Your task to perform on an android device: Open calendar and show me the fourth week of next month Image 0: 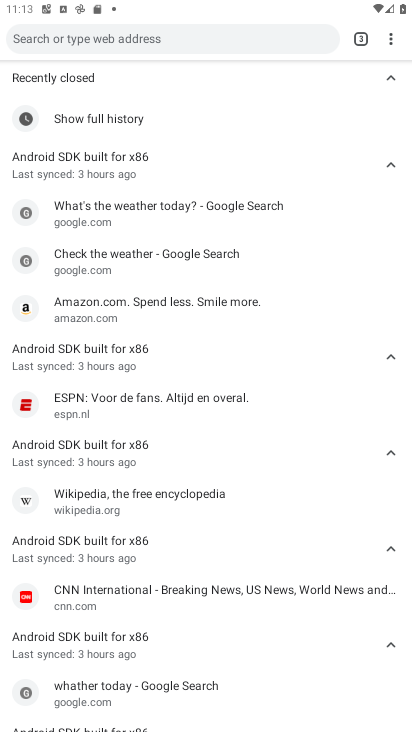
Step 0: press home button
Your task to perform on an android device: Open calendar and show me the fourth week of next month Image 1: 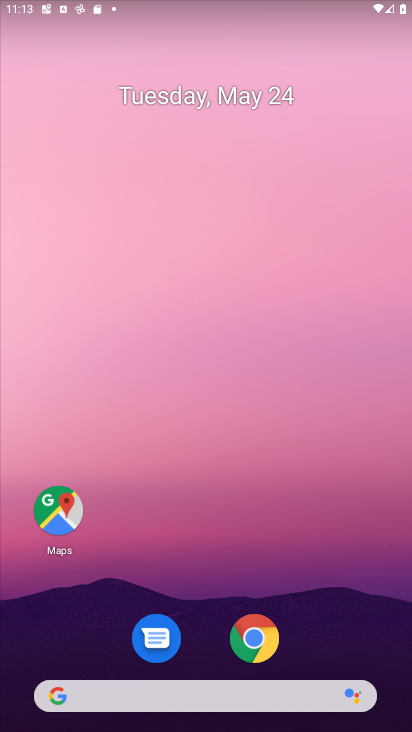
Step 1: drag from (137, 707) to (67, 9)
Your task to perform on an android device: Open calendar and show me the fourth week of next month Image 2: 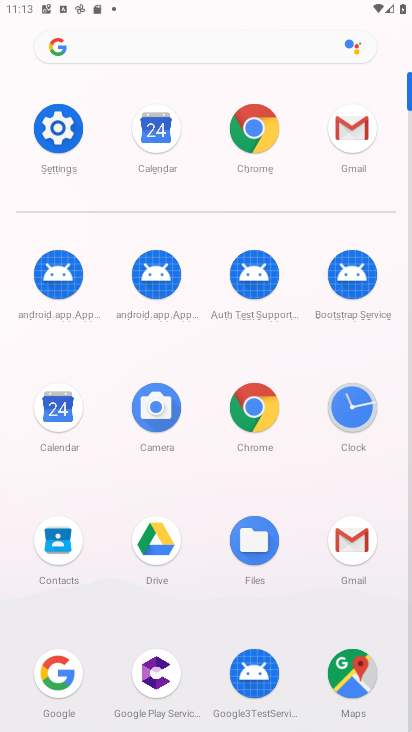
Step 2: click (90, 423)
Your task to perform on an android device: Open calendar and show me the fourth week of next month Image 3: 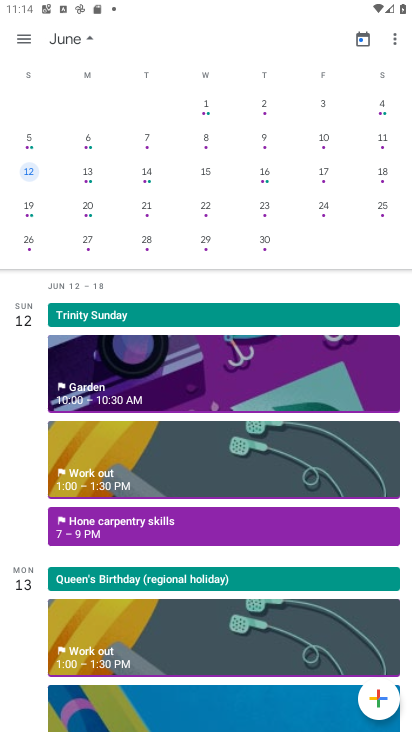
Step 3: click (21, 208)
Your task to perform on an android device: Open calendar and show me the fourth week of next month Image 4: 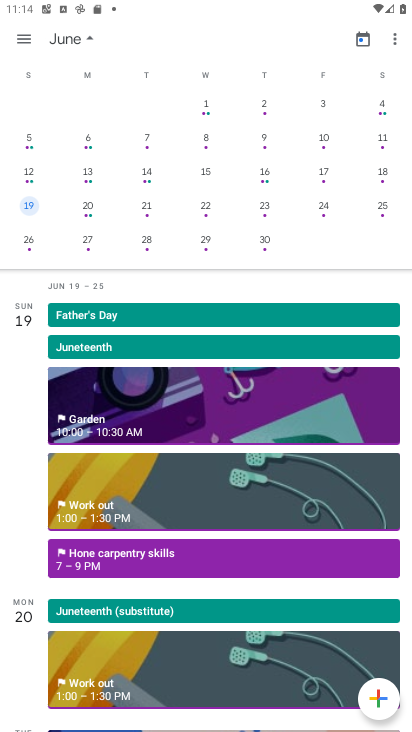
Step 4: task complete